Your task to perform on an android device: open app "YouTube Kids" Image 0: 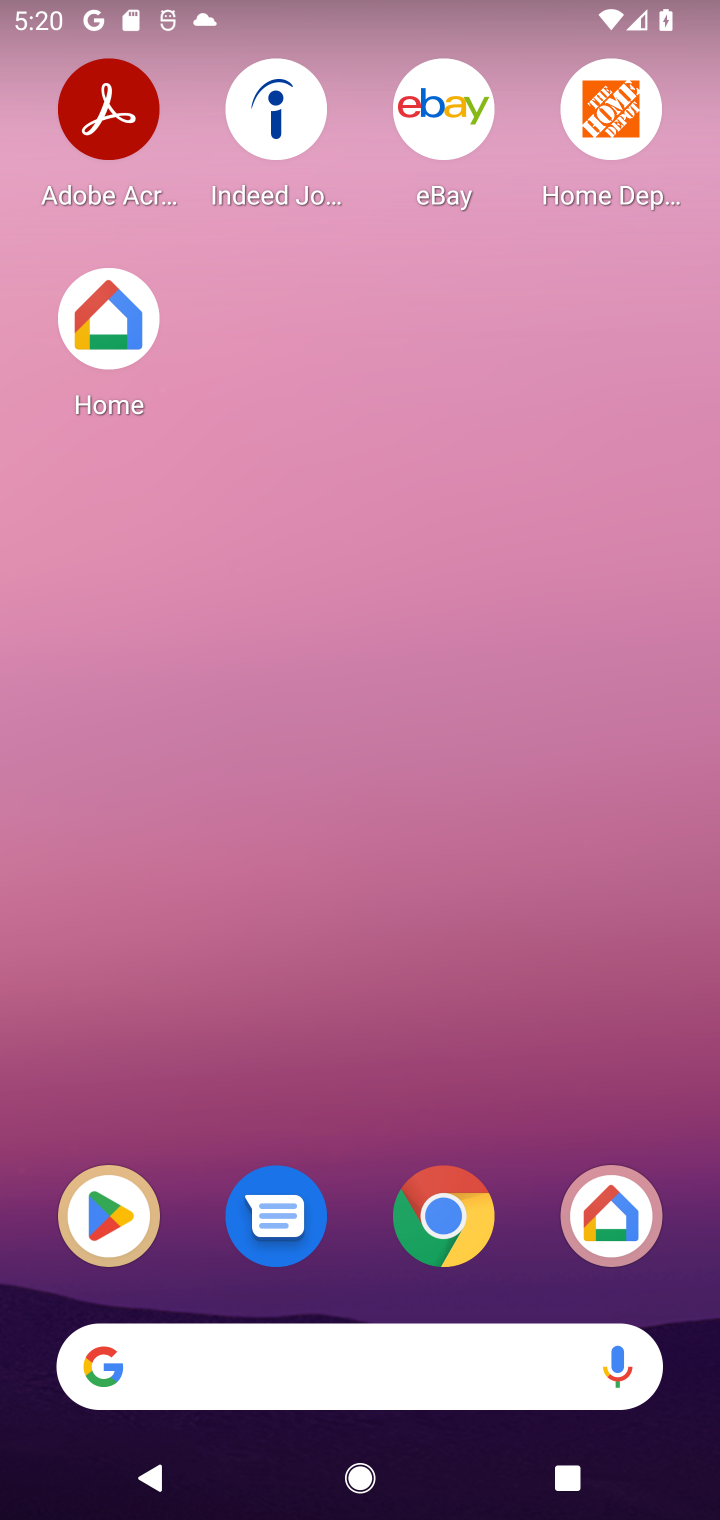
Step 0: click (104, 1269)
Your task to perform on an android device: open app "YouTube Kids" Image 1: 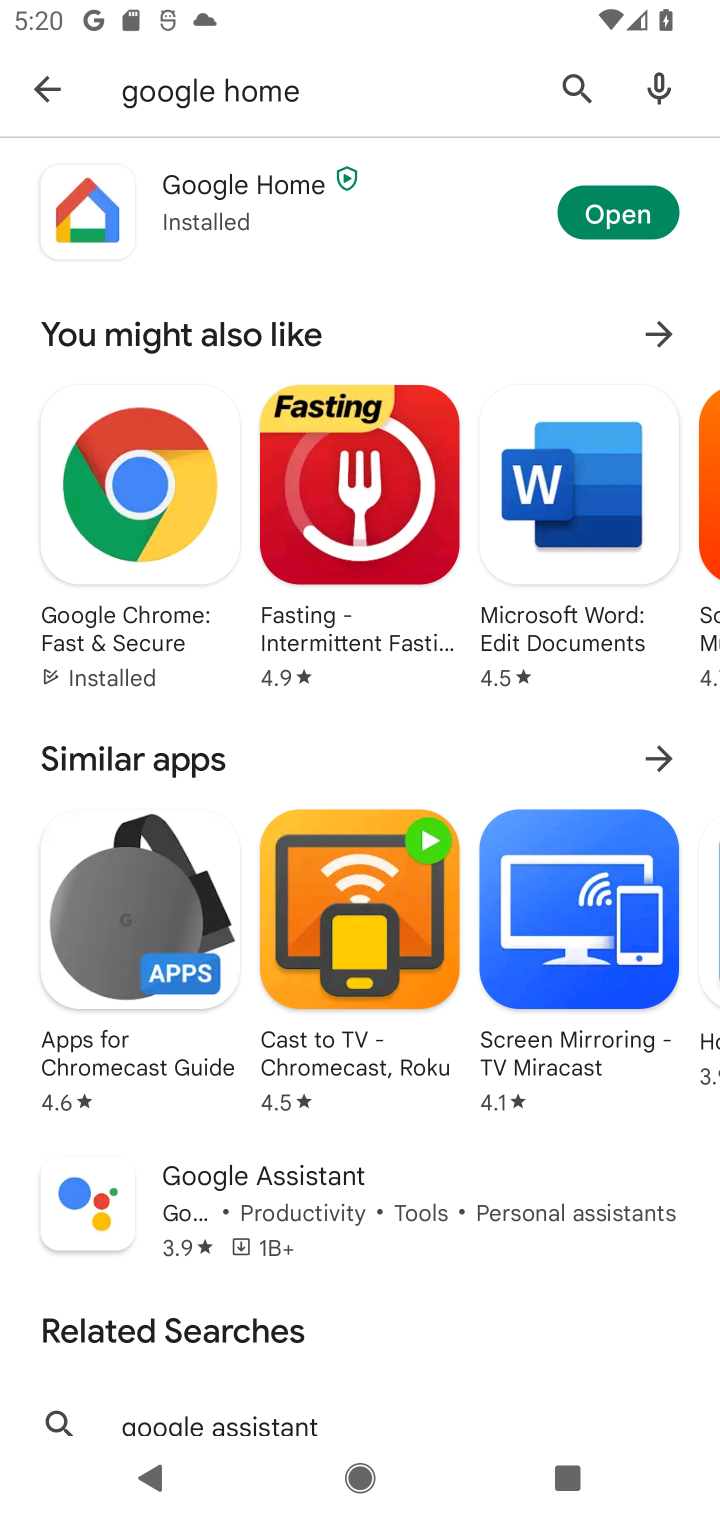
Step 1: click (582, 108)
Your task to perform on an android device: open app "YouTube Kids" Image 2: 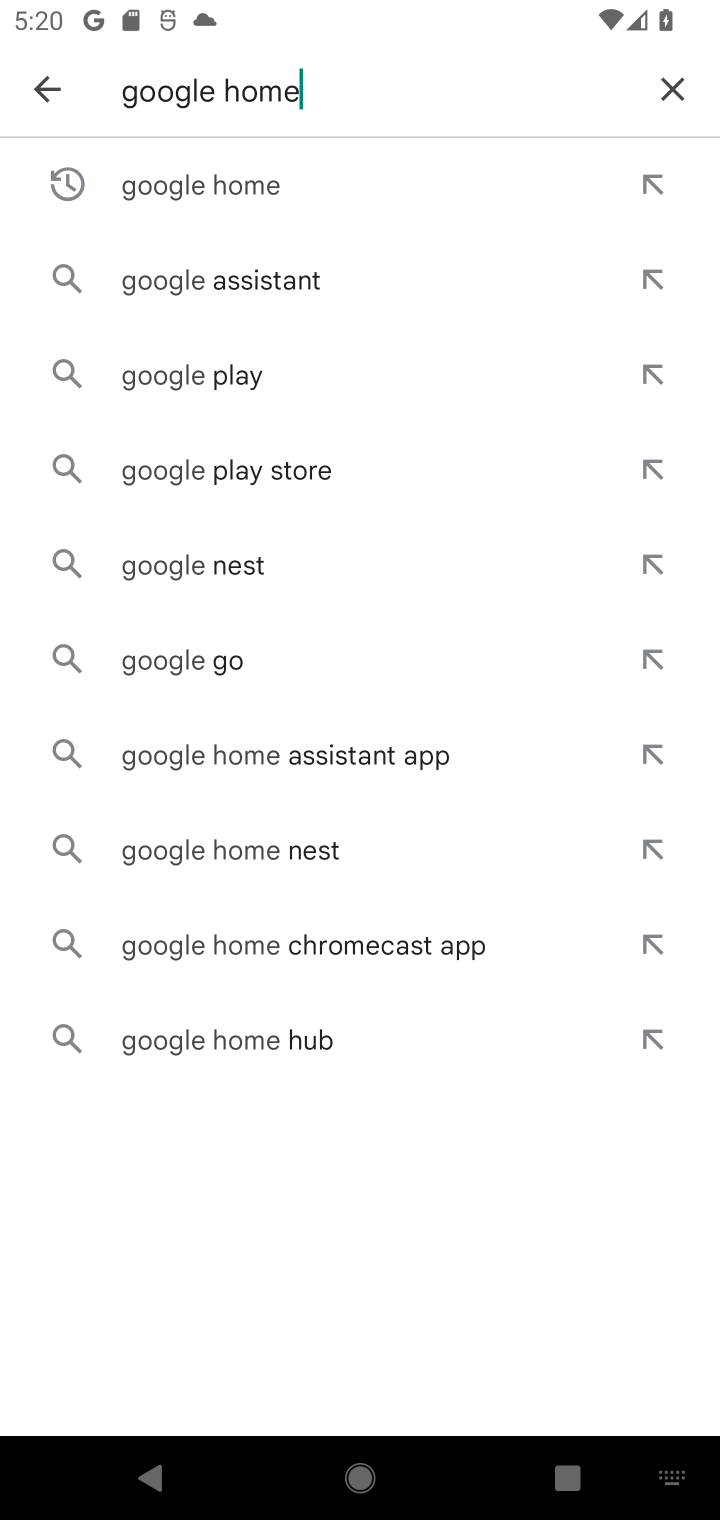
Step 2: click (657, 106)
Your task to perform on an android device: open app "YouTube Kids" Image 3: 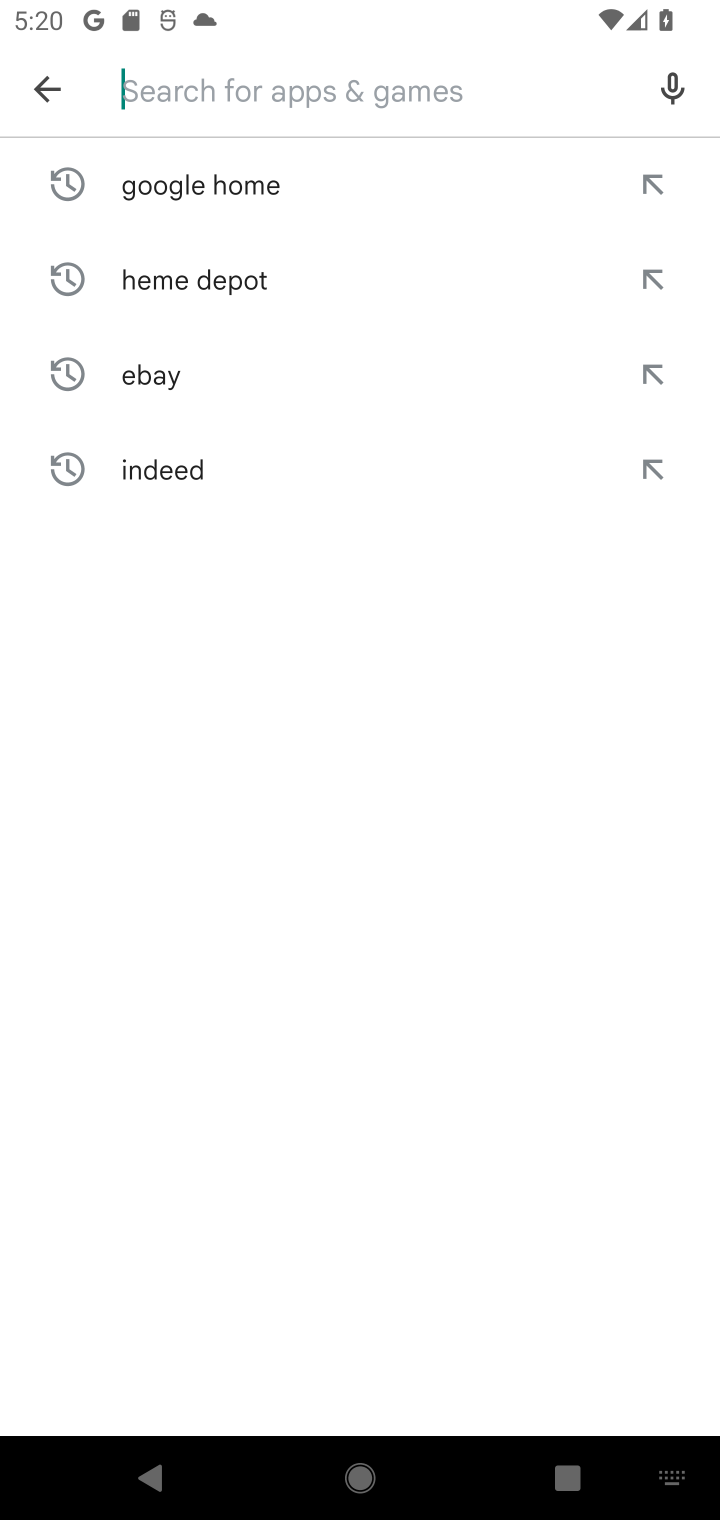
Step 3: type "youtubekid"
Your task to perform on an android device: open app "YouTube Kids" Image 4: 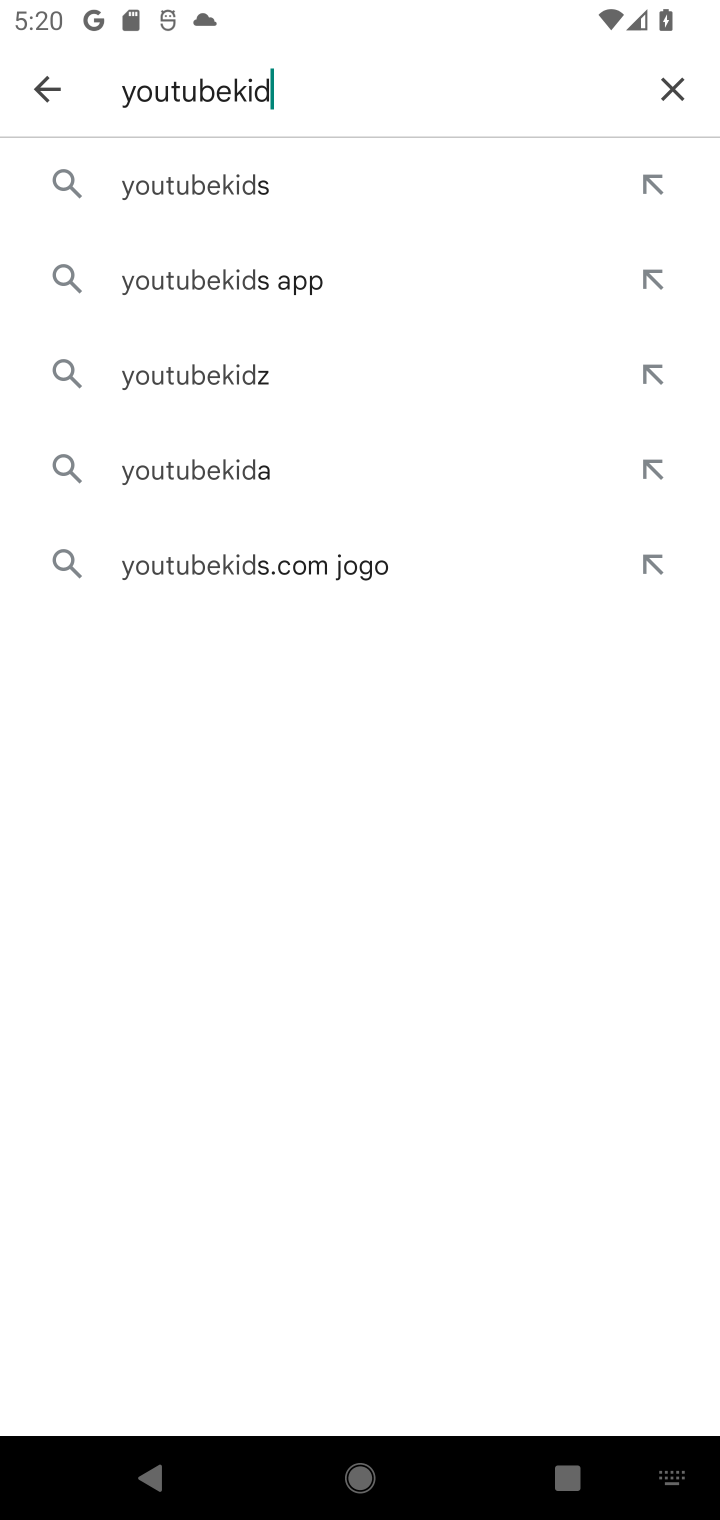
Step 4: click (276, 180)
Your task to perform on an android device: open app "YouTube Kids" Image 5: 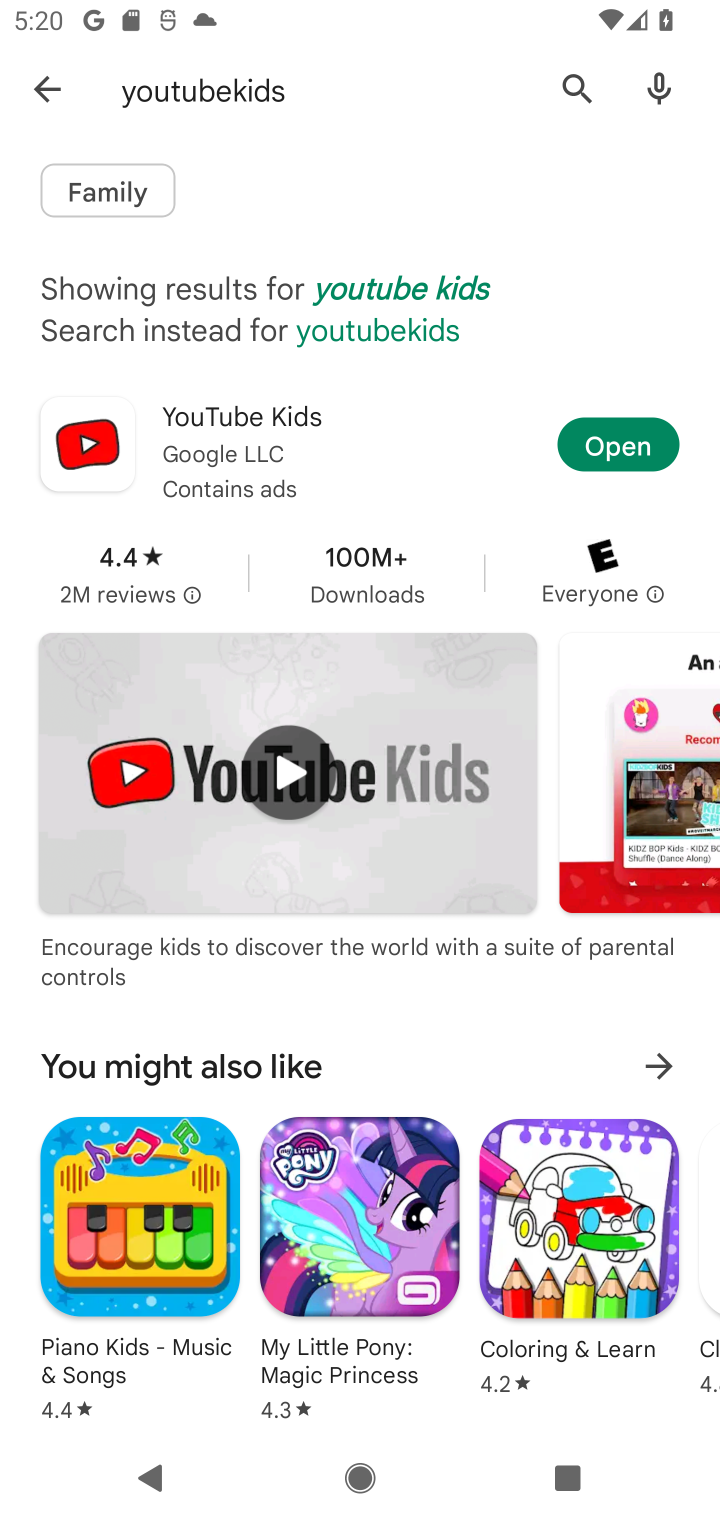
Step 5: click (622, 414)
Your task to perform on an android device: open app "YouTube Kids" Image 6: 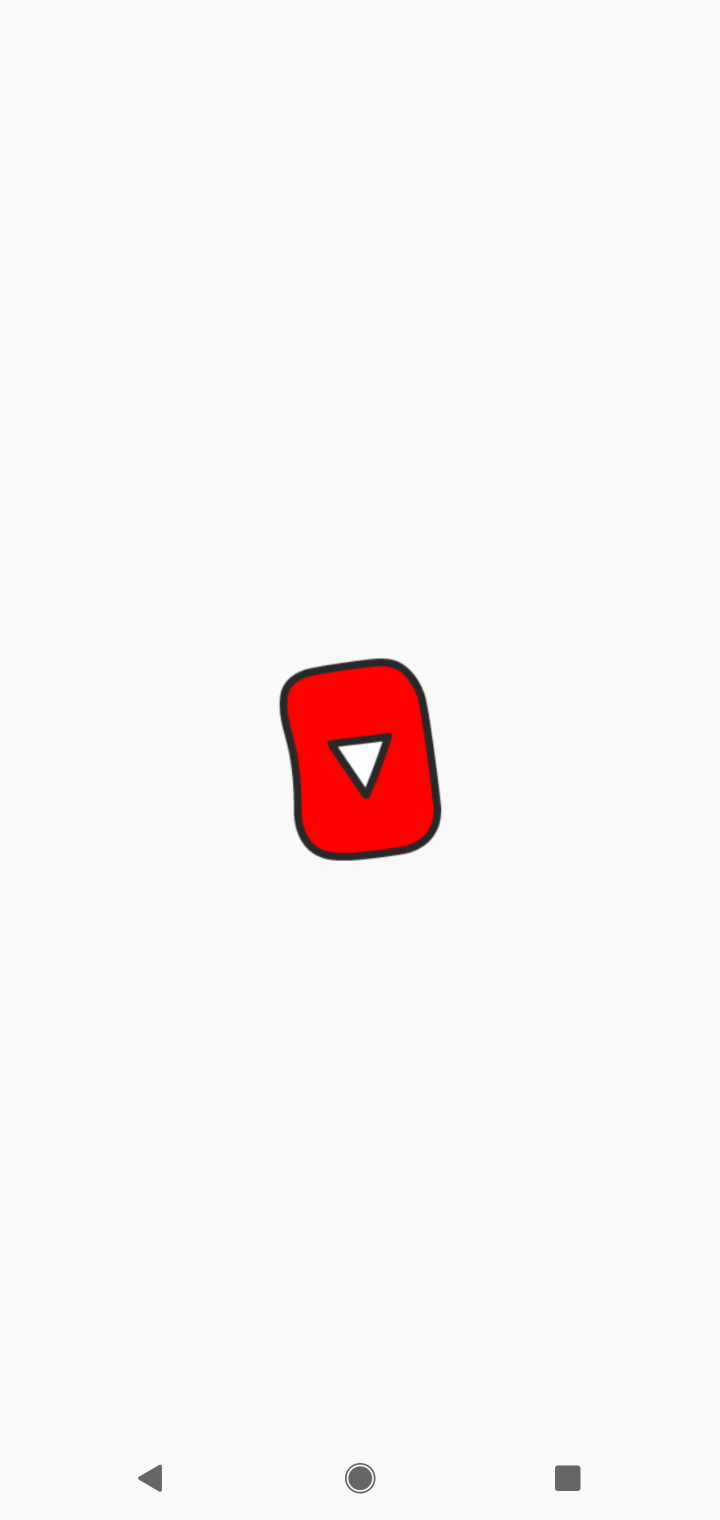
Step 6: task complete